Your task to perform on an android device: see creations saved in the google photos Image 0: 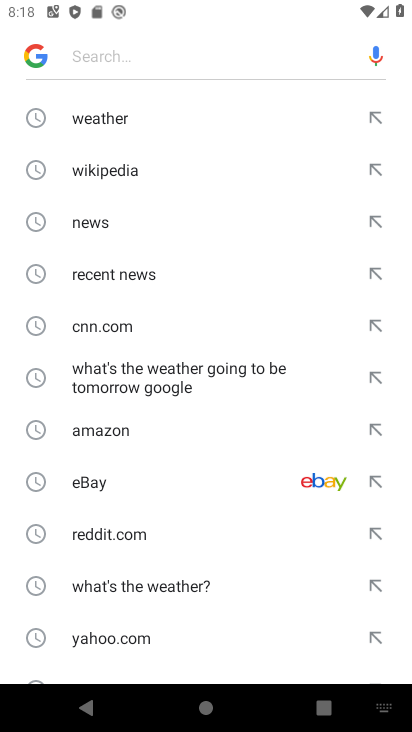
Step 0: press home button
Your task to perform on an android device: see creations saved in the google photos Image 1: 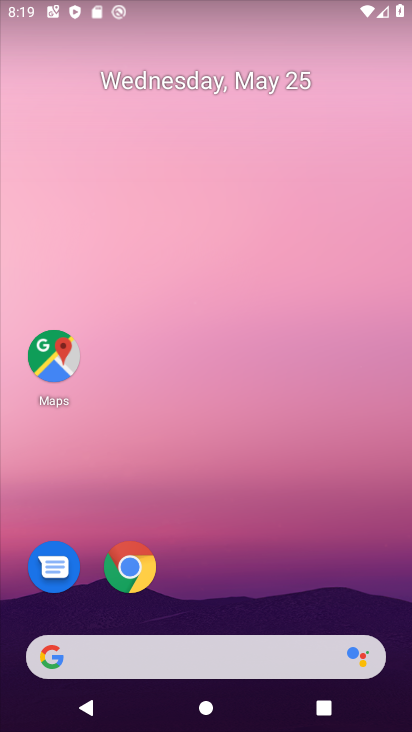
Step 1: drag from (226, 534) to (260, 0)
Your task to perform on an android device: see creations saved in the google photos Image 2: 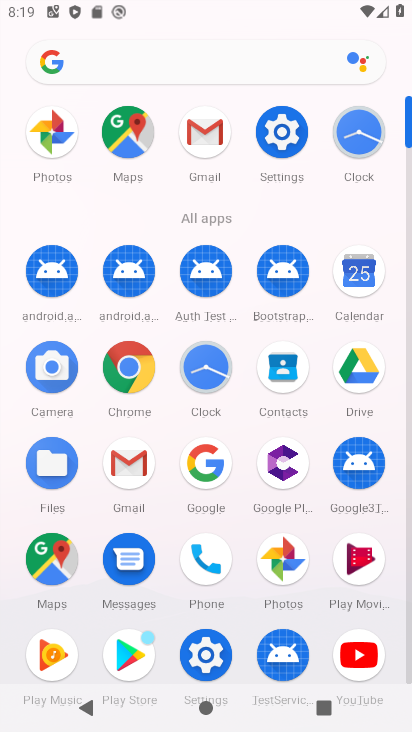
Step 2: click (53, 115)
Your task to perform on an android device: see creations saved in the google photos Image 3: 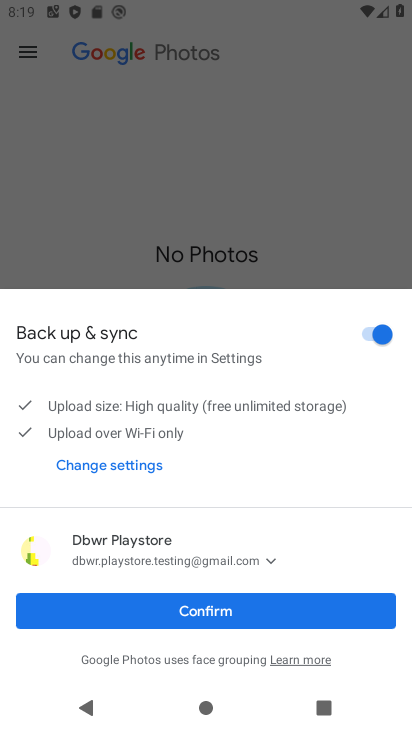
Step 3: click (235, 614)
Your task to perform on an android device: see creations saved in the google photos Image 4: 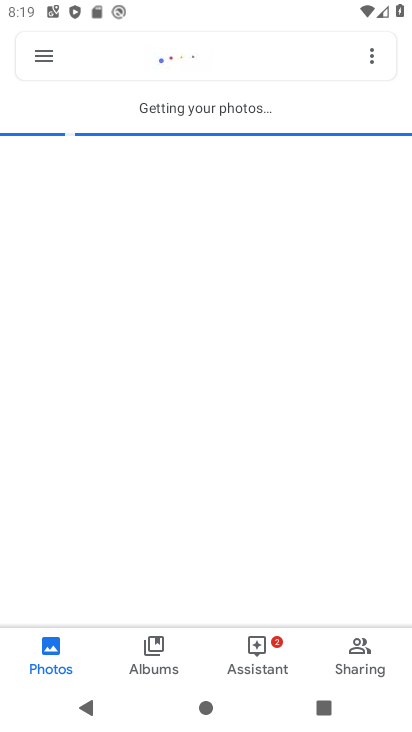
Step 4: click (186, 59)
Your task to perform on an android device: see creations saved in the google photos Image 5: 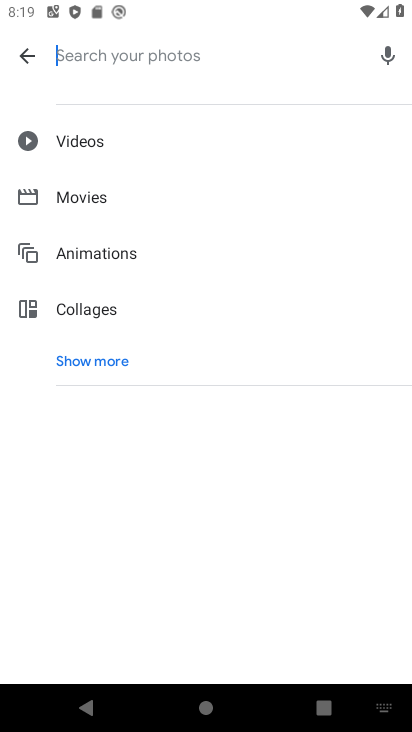
Step 5: click (99, 351)
Your task to perform on an android device: see creations saved in the google photos Image 6: 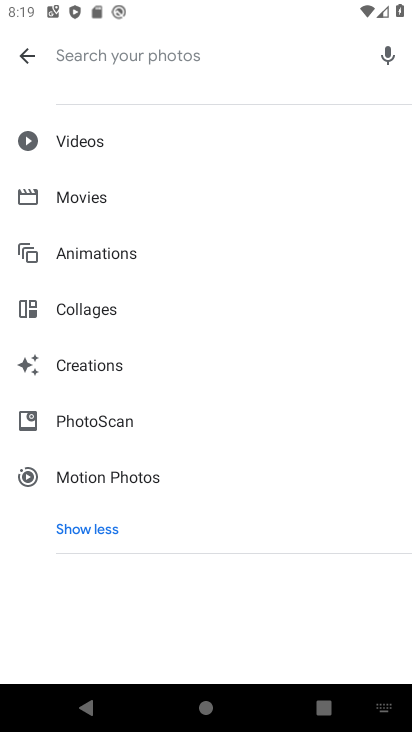
Step 6: click (98, 362)
Your task to perform on an android device: see creations saved in the google photos Image 7: 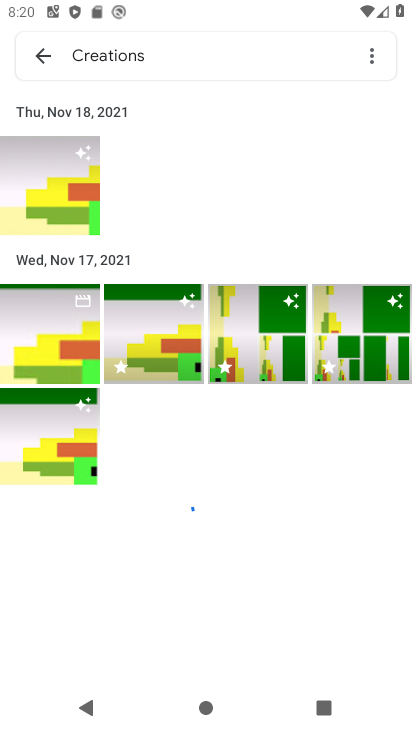
Step 7: task complete